Your task to perform on an android device: Open Chrome and go to settings Image 0: 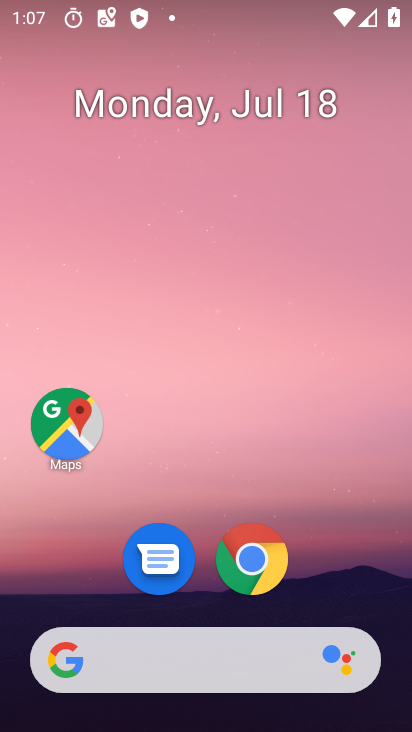
Step 0: click (268, 551)
Your task to perform on an android device: Open Chrome and go to settings Image 1: 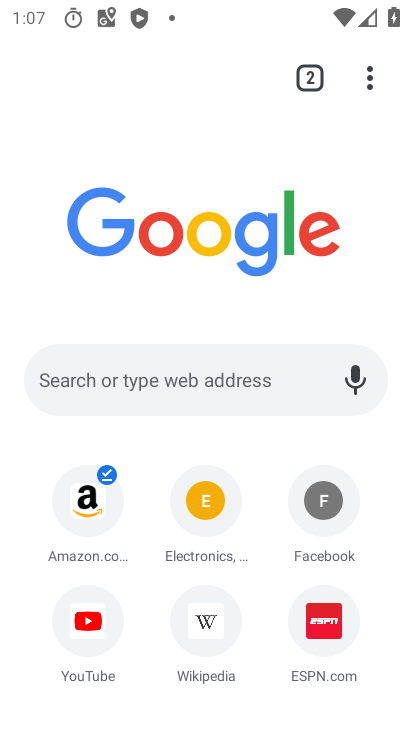
Step 1: task complete